Your task to perform on an android device: Open Reddit.com Image 0: 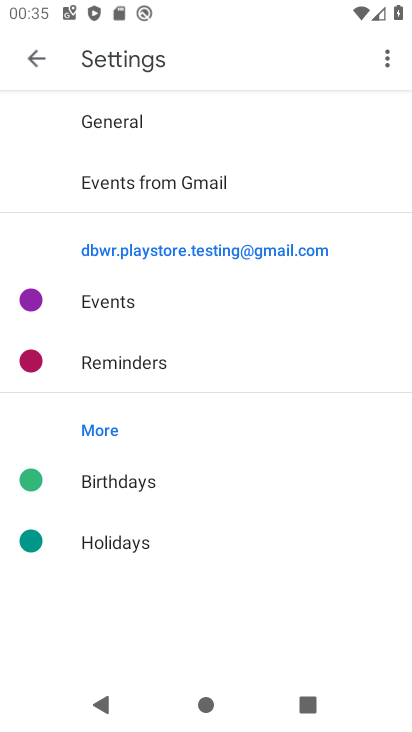
Step 0: press home button
Your task to perform on an android device: Open Reddit.com Image 1: 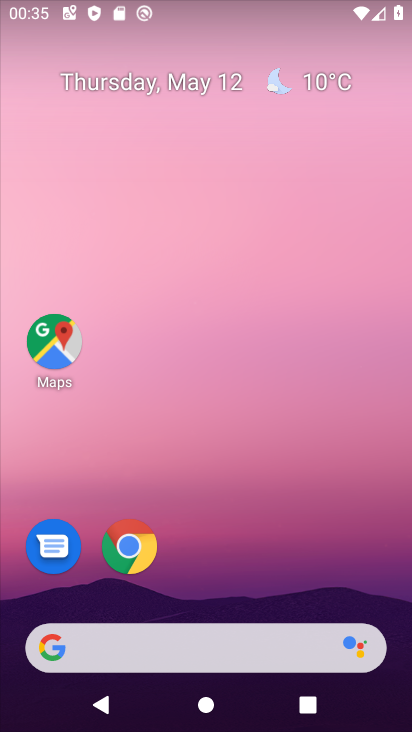
Step 1: click (129, 548)
Your task to perform on an android device: Open Reddit.com Image 2: 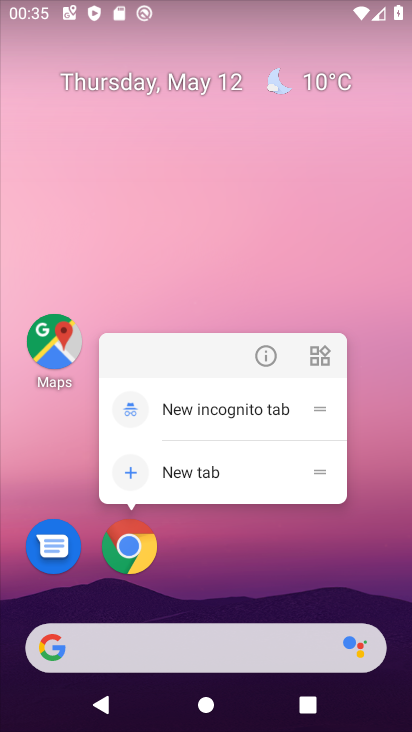
Step 2: click (130, 542)
Your task to perform on an android device: Open Reddit.com Image 3: 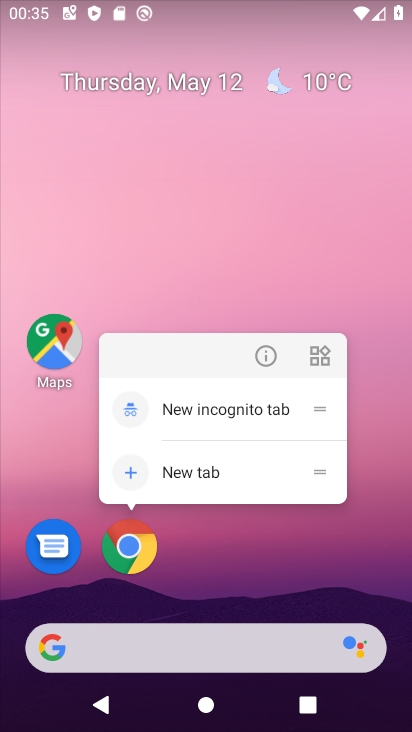
Step 3: click (130, 542)
Your task to perform on an android device: Open Reddit.com Image 4: 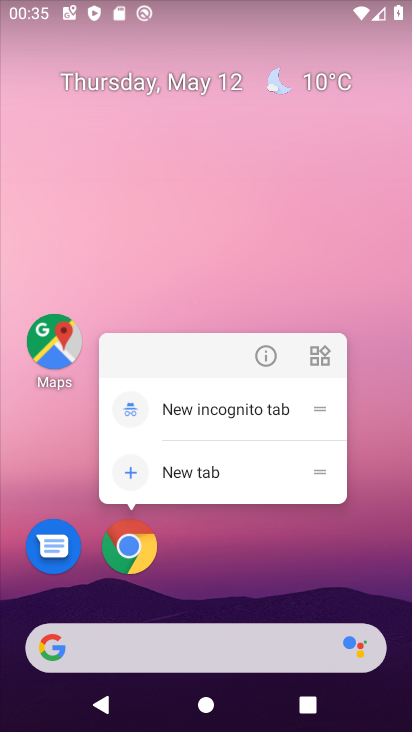
Step 4: click (264, 351)
Your task to perform on an android device: Open Reddit.com Image 5: 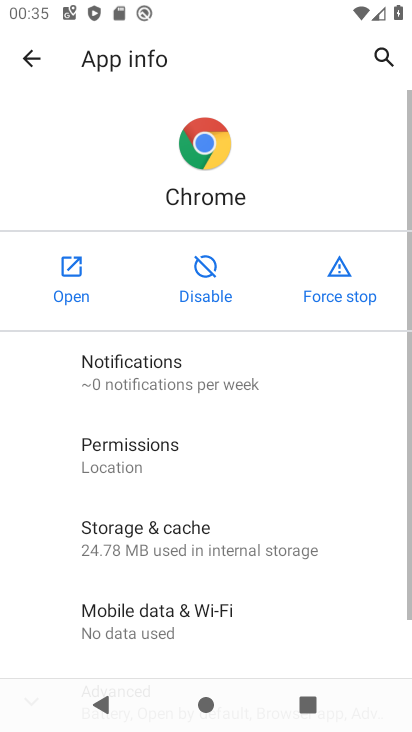
Step 5: click (77, 277)
Your task to perform on an android device: Open Reddit.com Image 6: 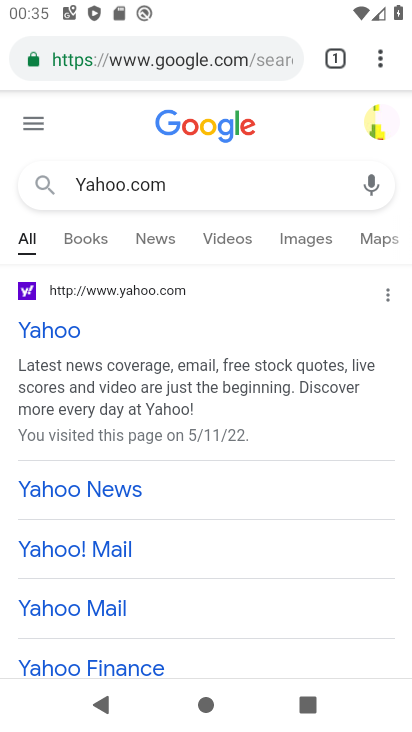
Step 6: click (152, 62)
Your task to perform on an android device: Open Reddit.com Image 7: 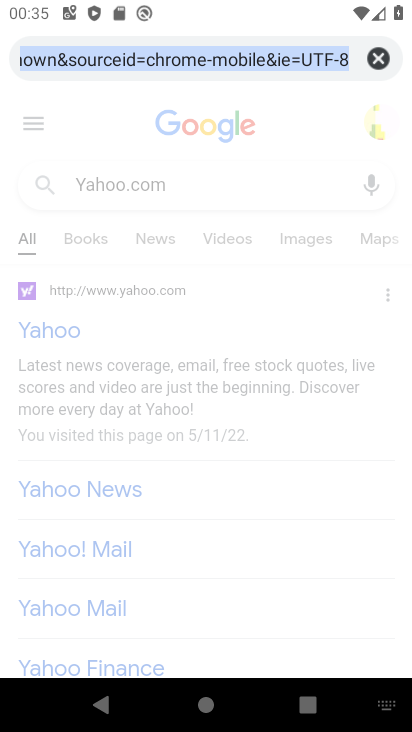
Step 7: type "Reddit.com"
Your task to perform on an android device: Open Reddit.com Image 8: 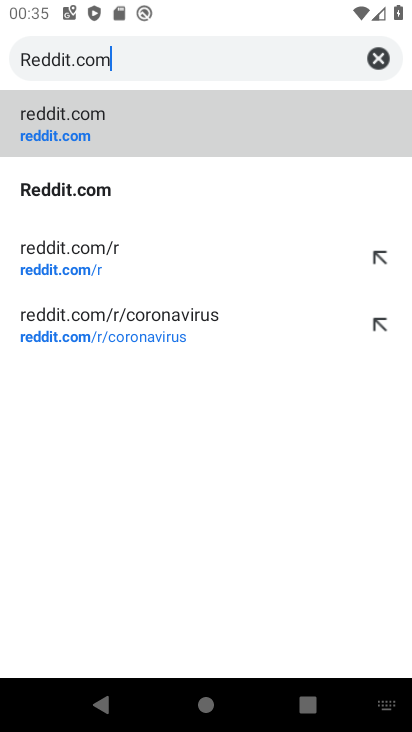
Step 8: click (151, 109)
Your task to perform on an android device: Open Reddit.com Image 9: 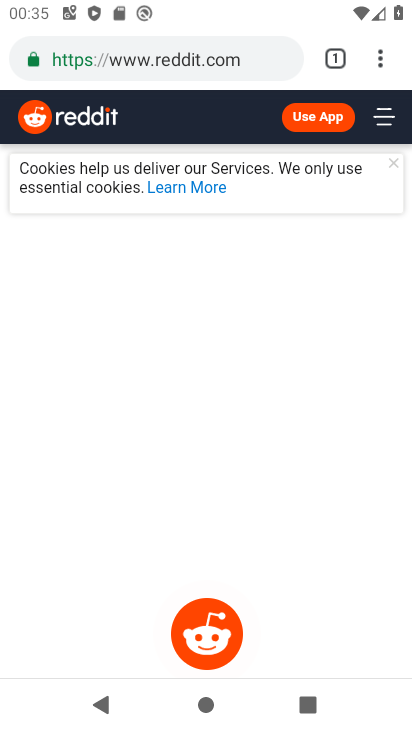
Step 9: task complete